Your task to perform on an android device: toggle improve location accuracy Image 0: 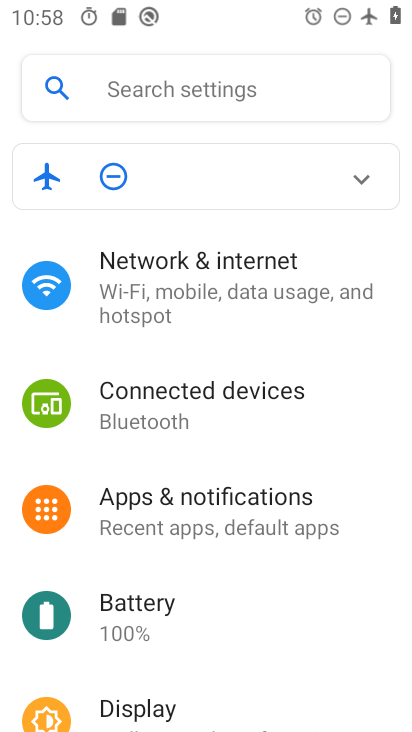
Step 0: press home button
Your task to perform on an android device: toggle improve location accuracy Image 1: 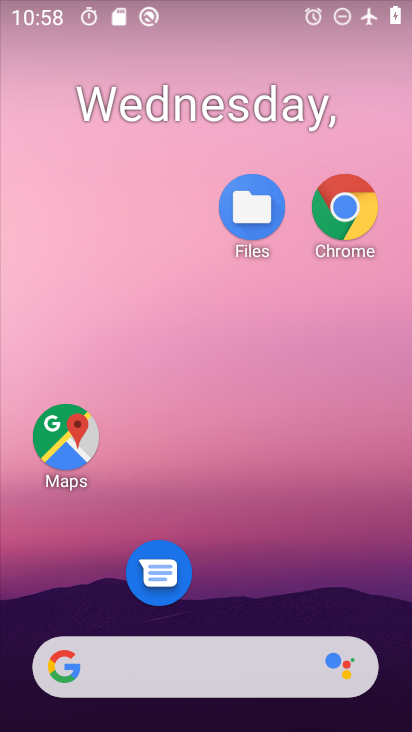
Step 1: drag from (227, 643) to (337, 104)
Your task to perform on an android device: toggle improve location accuracy Image 2: 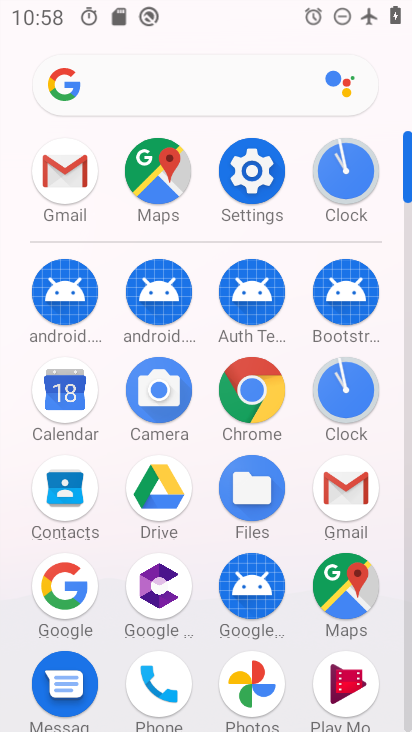
Step 2: drag from (200, 562) to (248, 233)
Your task to perform on an android device: toggle improve location accuracy Image 3: 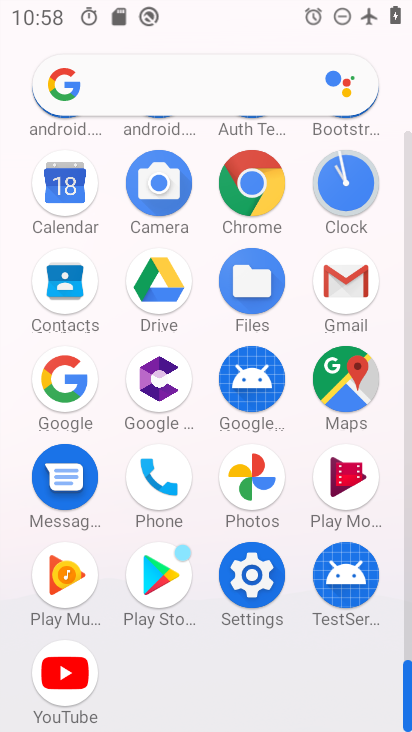
Step 3: click (275, 594)
Your task to perform on an android device: toggle improve location accuracy Image 4: 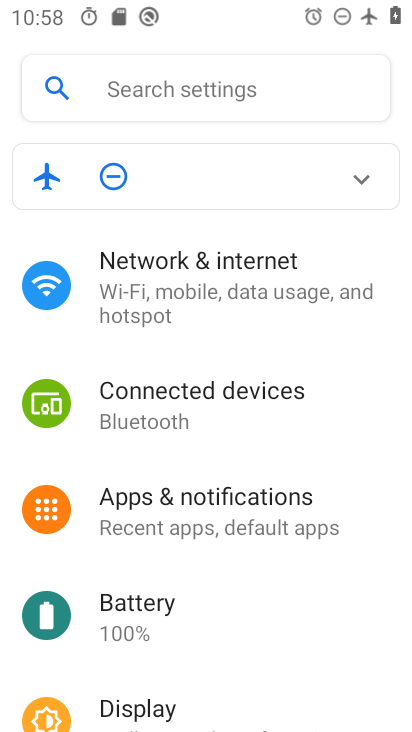
Step 4: drag from (275, 594) to (249, 409)
Your task to perform on an android device: toggle improve location accuracy Image 5: 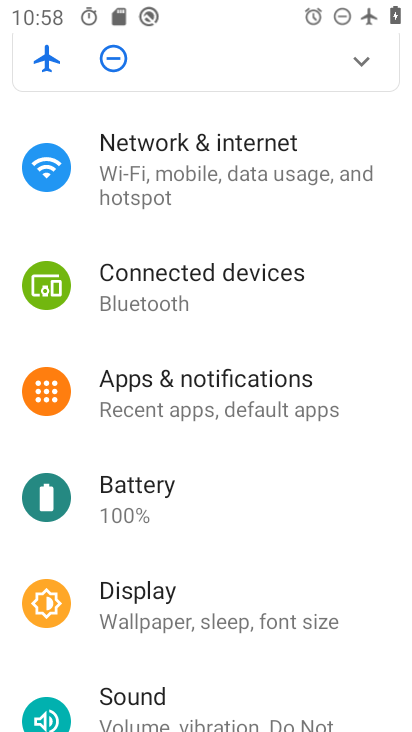
Step 5: click (291, 306)
Your task to perform on an android device: toggle improve location accuracy Image 6: 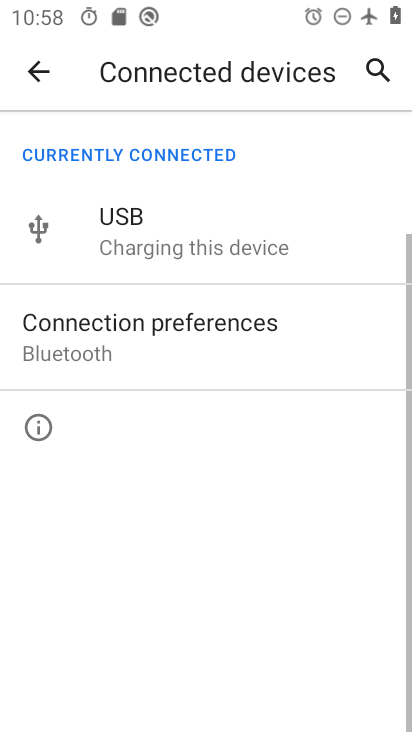
Step 6: drag from (223, 588) to (181, 425)
Your task to perform on an android device: toggle improve location accuracy Image 7: 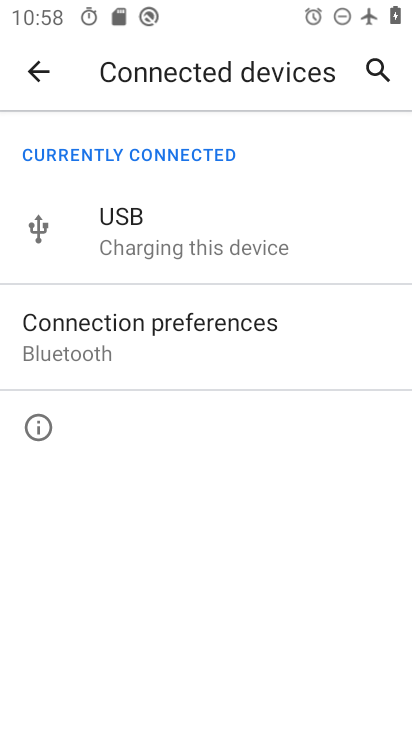
Step 7: click (34, 77)
Your task to perform on an android device: toggle improve location accuracy Image 8: 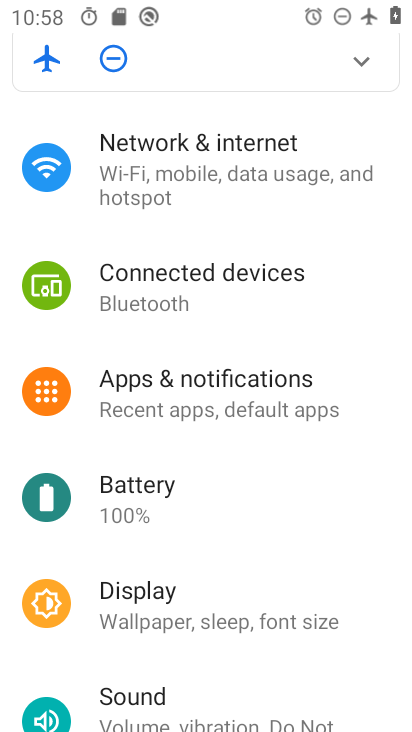
Step 8: drag from (282, 497) to (293, 357)
Your task to perform on an android device: toggle improve location accuracy Image 9: 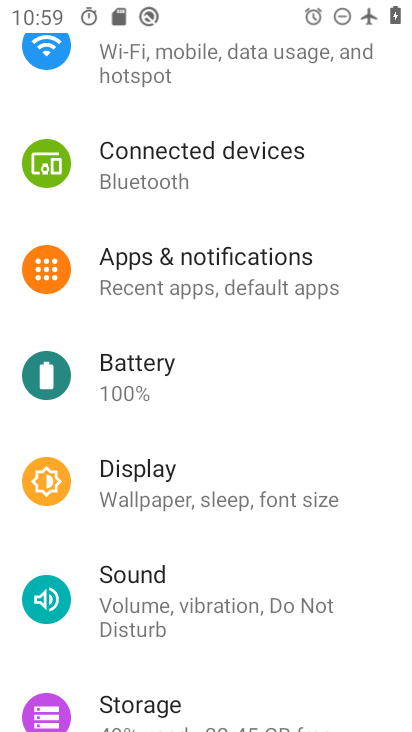
Step 9: drag from (263, 695) to (290, 341)
Your task to perform on an android device: toggle improve location accuracy Image 10: 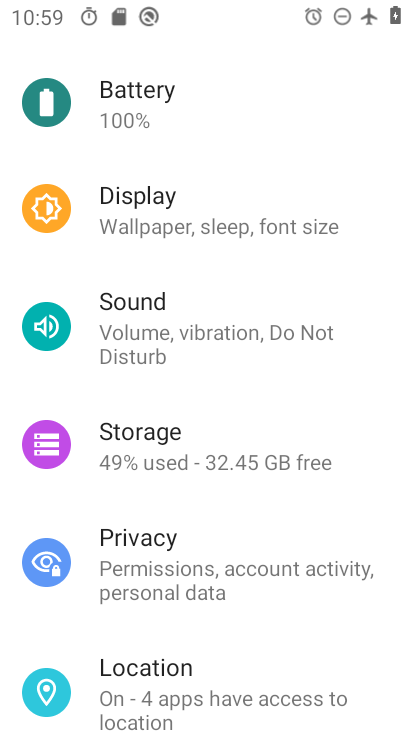
Step 10: click (231, 671)
Your task to perform on an android device: toggle improve location accuracy Image 11: 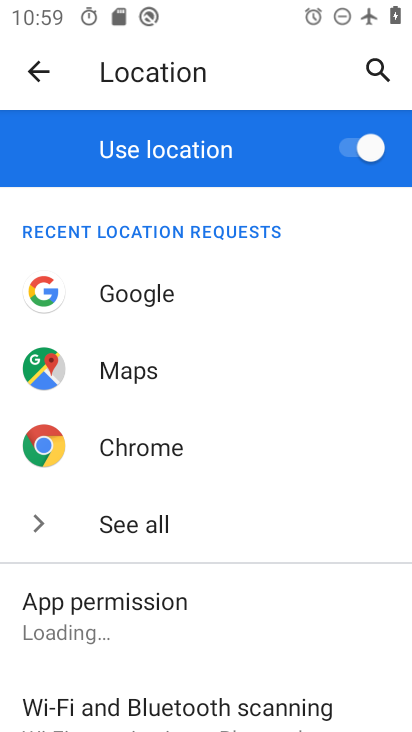
Step 11: drag from (231, 671) to (362, 179)
Your task to perform on an android device: toggle improve location accuracy Image 12: 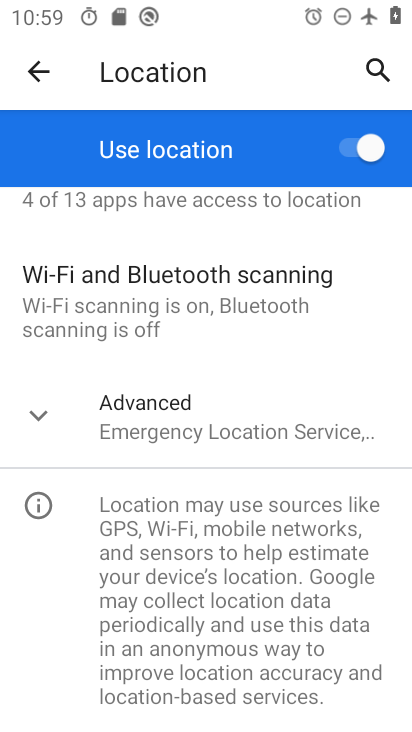
Step 12: click (217, 430)
Your task to perform on an android device: toggle improve location accuracy Image 13: 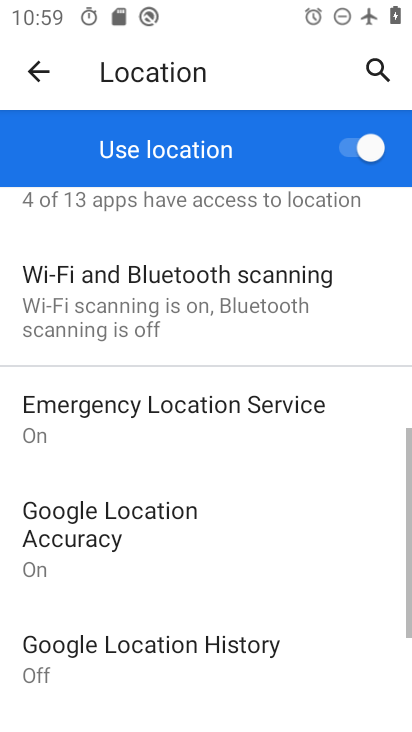
Step 13: drag from (241, 561) to (315, 321)
Your task to perform on an android device: toggle improve location accuracy Image 14: 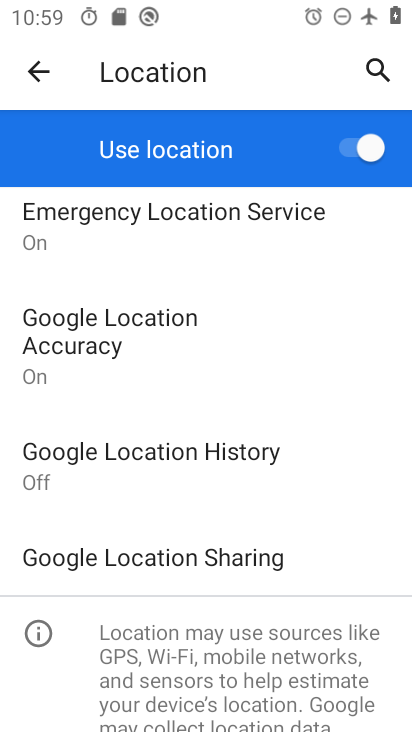
Step 14: click (182, 328)
Your task to perform on an android device: toggle improve location accuracy Image 15: 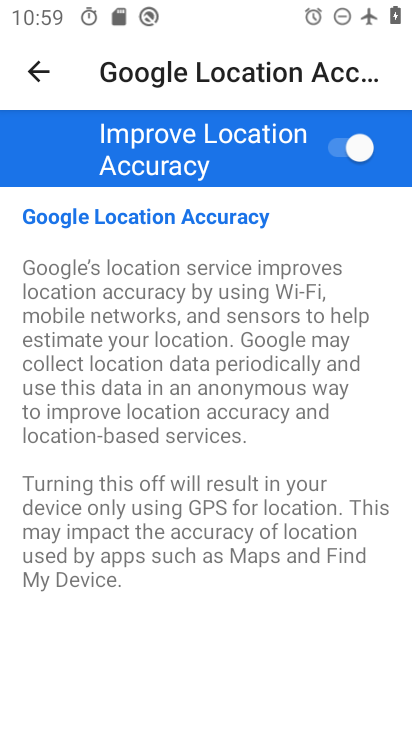
Step 15: click (335, 164)
Your task to perform on an android device: toggle improve location accuracy Image 16: 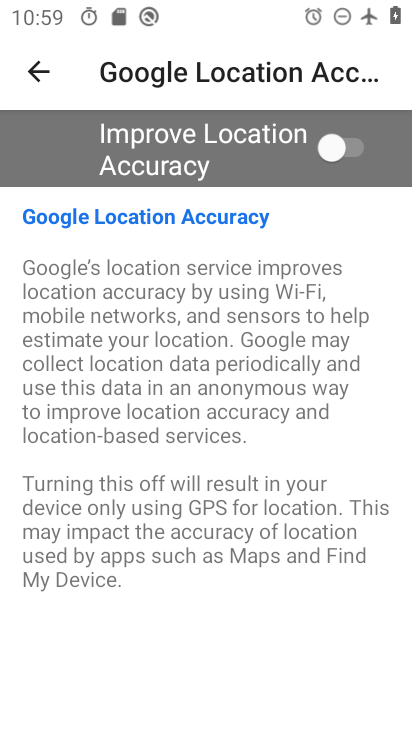
Step 16: task complete